Your task to perform on an android device: open the mobile data screen to see how much data has been used Image 0: 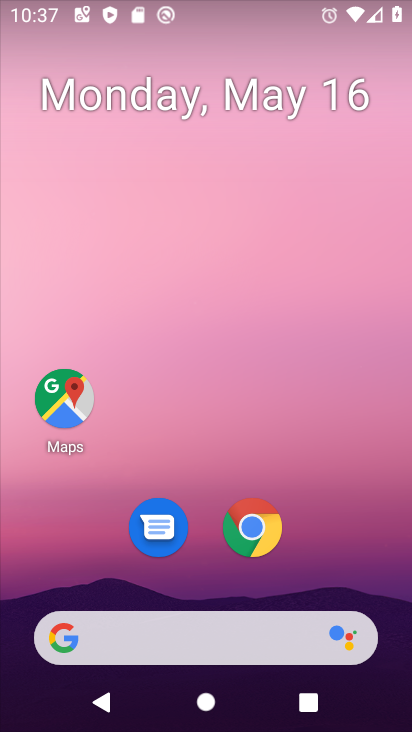
Step 0: drag from (365, 586) to (397, 13)
Your task to perform on an android device: open the mobile data screen to see how much data has been used Image 1: 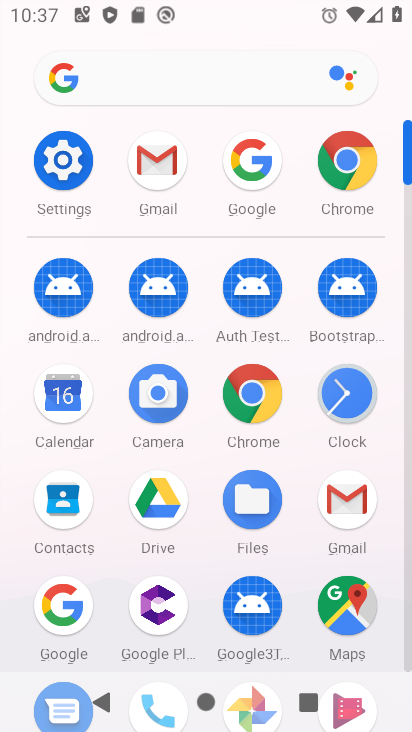
Step 1: click (58, 169)
Your task to perform on an android device: open the mobile data screen to see how much data has been used Image 2: 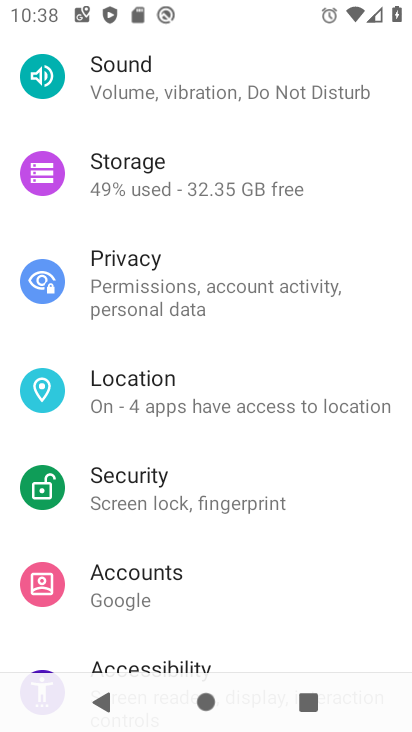
Step 2: drag from (290, 199) to (280, 486)
Your task to perform on an android device: open the mobile data screen to see how much data has been used Image 3: 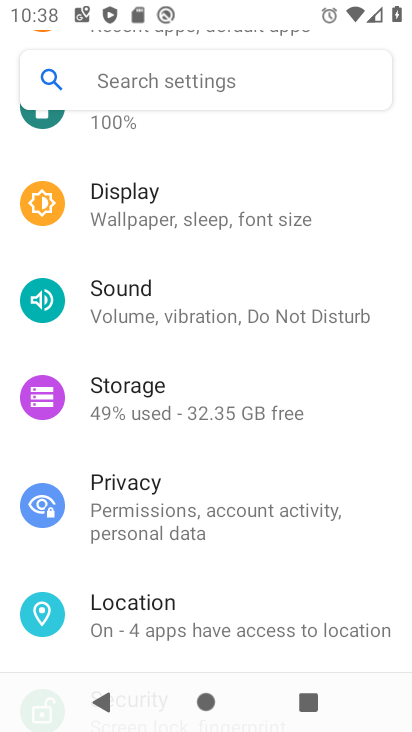
Step 3: drag from (241, 198) to (273, 561)
Your task to perform on an android device: open the mobile data screen to see how much data has been used Image 4: 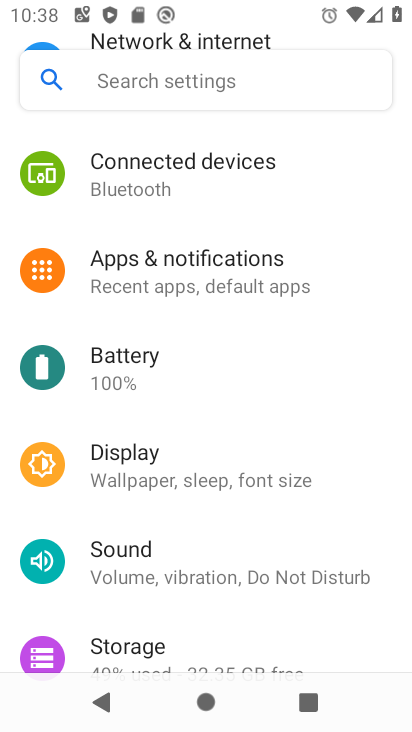
Step 4: drag from (243, 217) to (261, 621)
Your task to perform on an android device: open the mobile data screen to see how much data has been used Image 5: 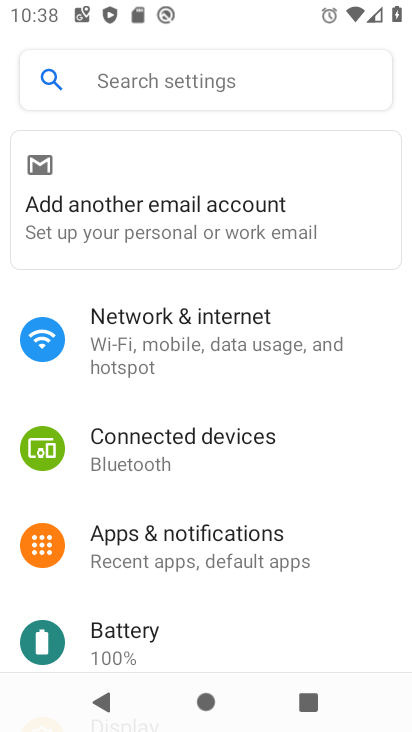
Step 5: click (168, 335)
Your task to perform on an android device: open the mobile data screen to see how much data has been used Image 6: 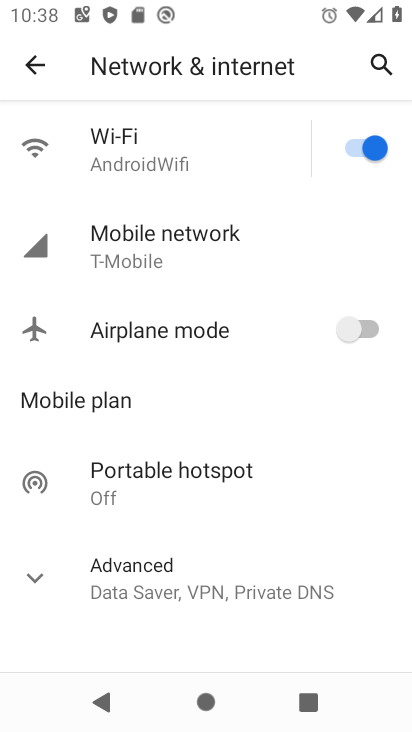
Step 6: click (131, 250)
Your task to perform on an android device: open the mobile data screen to see how much data has been used Image 7: 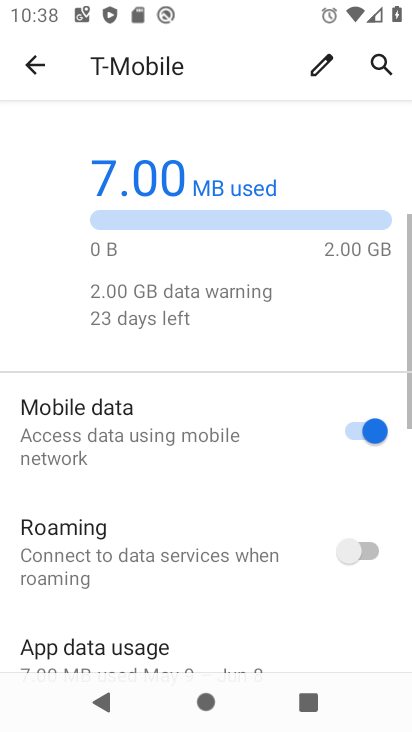
Step 7: drag from (173, 506) to (182, 164)
Your task to perform on an android device: open the mobile data screen to see how much data has been used Image 8: 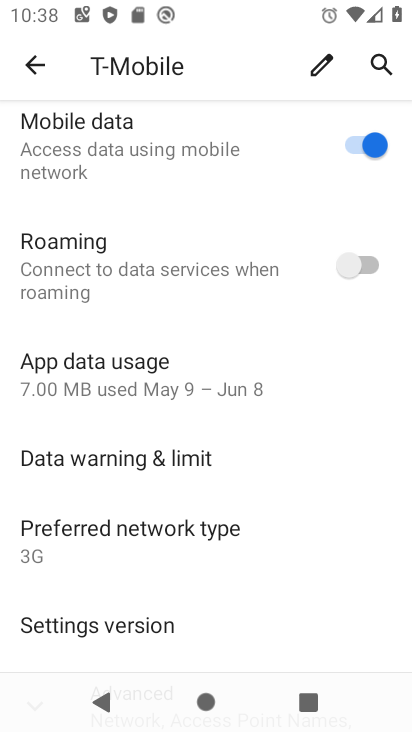
Step 8: click (1, 374)
Your task to perform on an android device: open the mobile data screen to see how much data has been used Image 9: 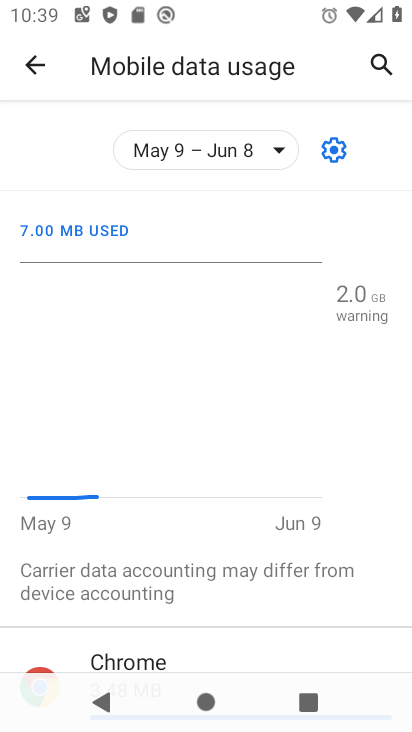
Step 9: task complete